Your task to perform on an android device: empty trash in the gmail app Image 0: 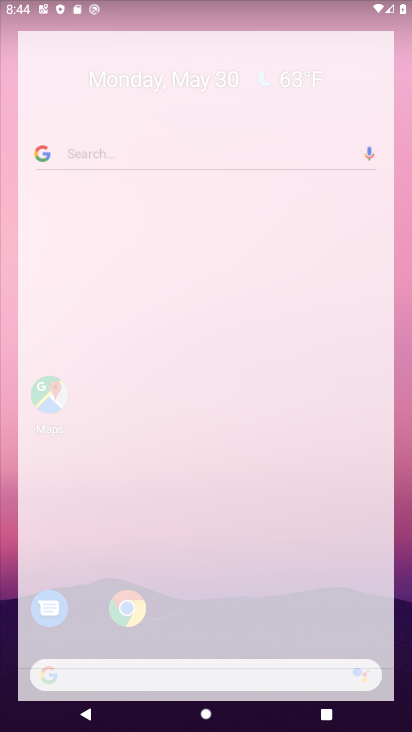
Step 0: drag from (395, 700) to (320, 159)
Your task to perform on an android device: empty trash in the gmail app Image 1: 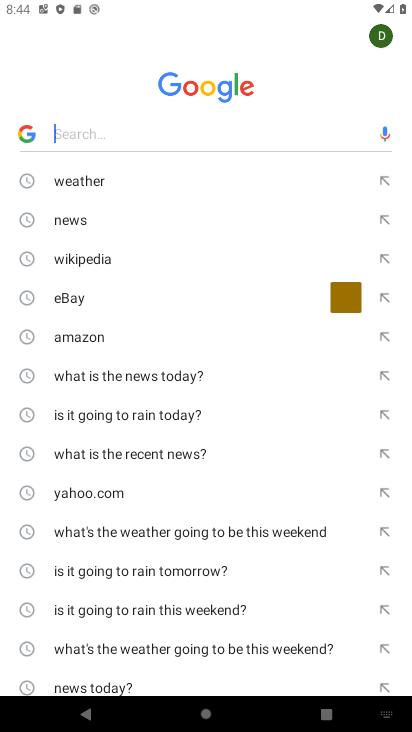
Step 1: press home button
Your task to perform on an android device: empty trash in the gmail app Image 2: 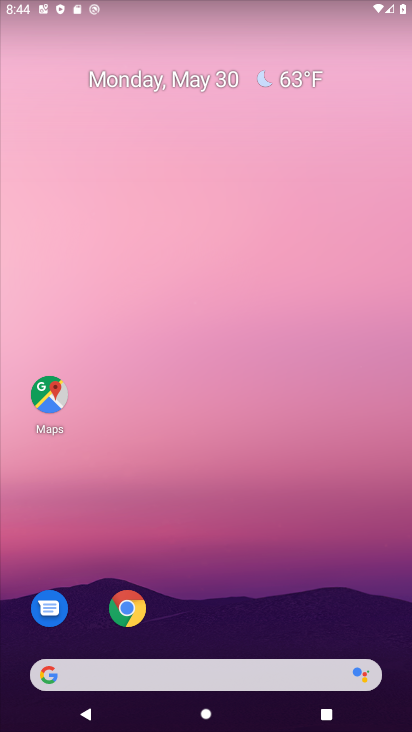
Step 2: drag from (401, 710) to (310, 279)
Your task to perform on an android device: empty trash in the gmail app Image 3: 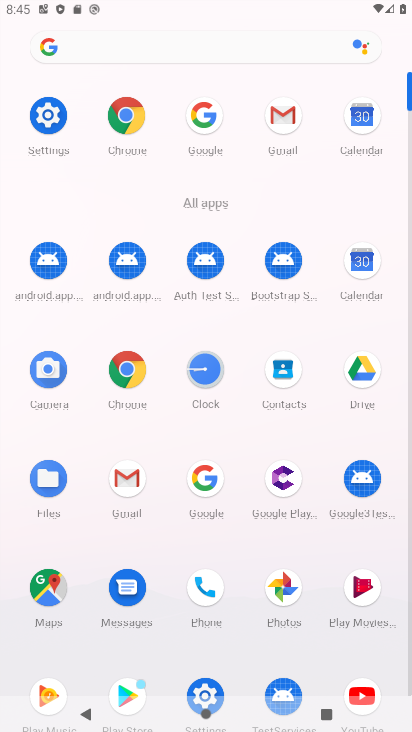
Step 3: click (114, 484)
Your task to perform on an android device: empty trash in the gmail app Image 4: 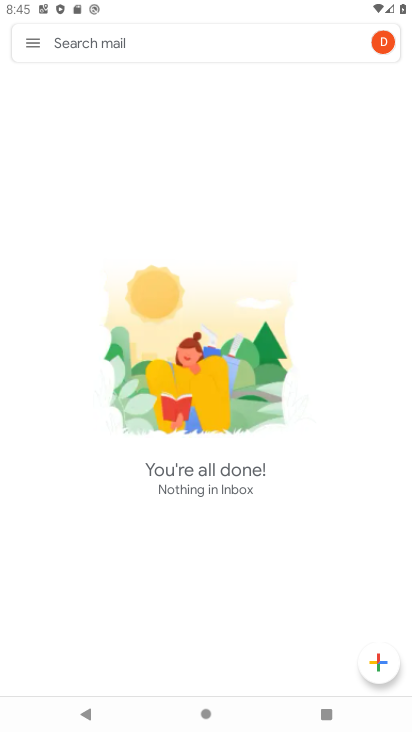
Step 4: click (31, 35)
Your task to perform on an android device: empty trash in the gmail app Image 5: 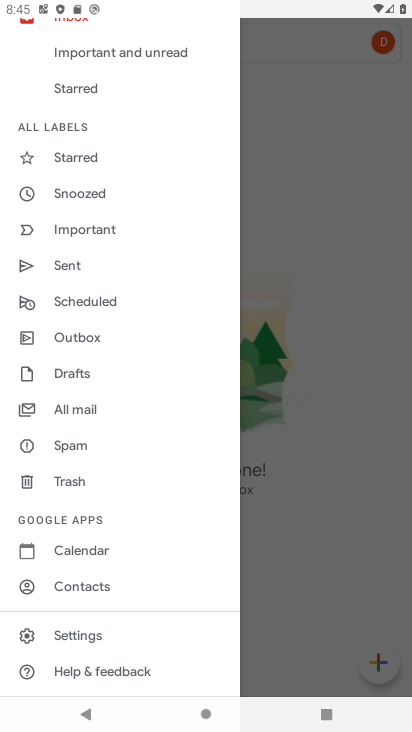
Step 5: click (64, 476)
Your task to perform on an android device: empty trash in the gmail app Image 6: 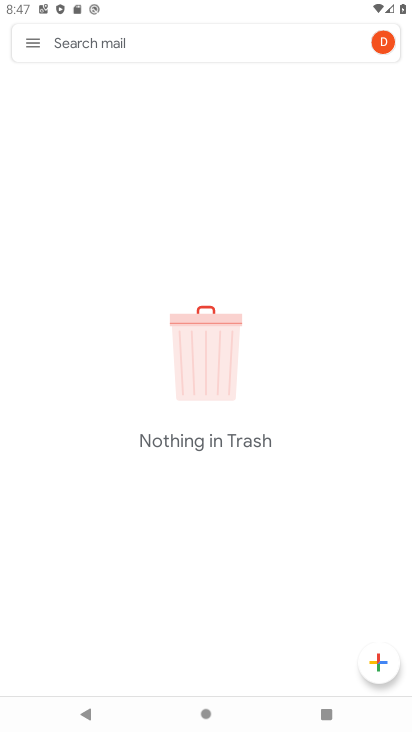
Step 6: task complete